Your task to perform on an android device: empty trash in the gmail app Image 0: 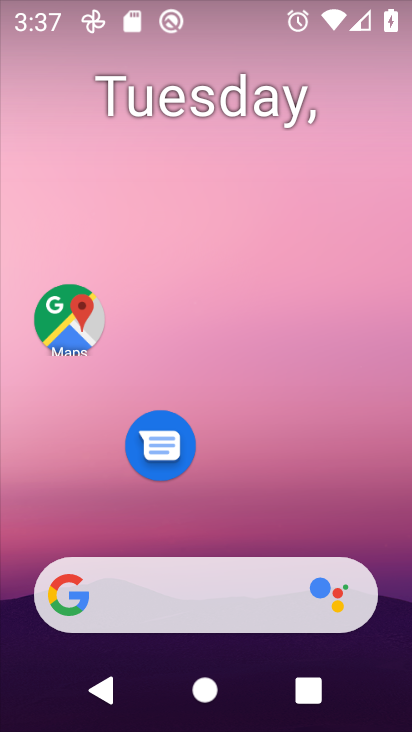
Step 0: drag from (262, 513) to (261, 17)
Your task to perform on an android device: empty trash in the gmail app Image 1: 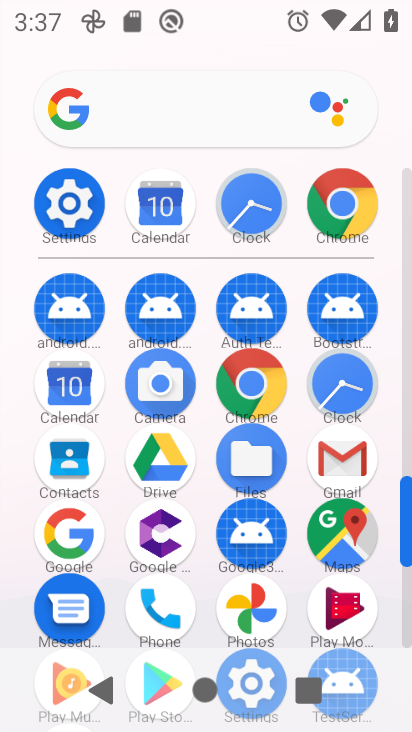
Step 1: click (348, 465)
Your task to perform on an android device: empty trash in the gmail app Image 2: 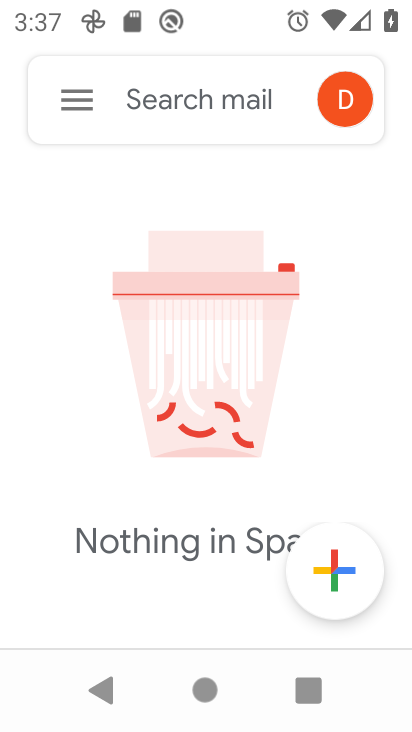
Step 2: click (66, 99)
Your task to perform on an android device: empty trash in the gmail app Image 3: 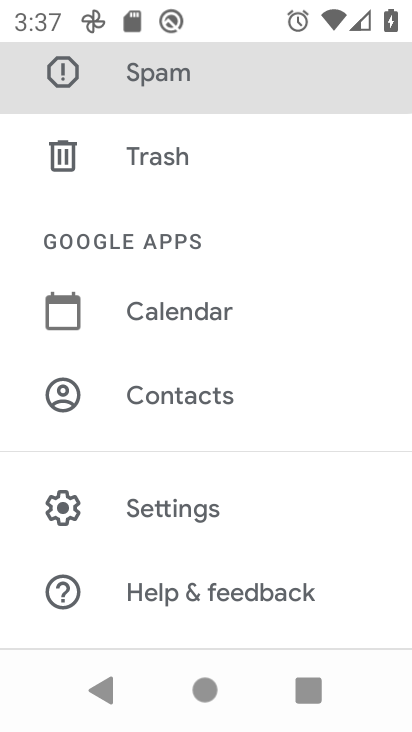
Step 3: click (155, 151)
Your task to perform on an android device: empty trash in the gmail app Image 4: 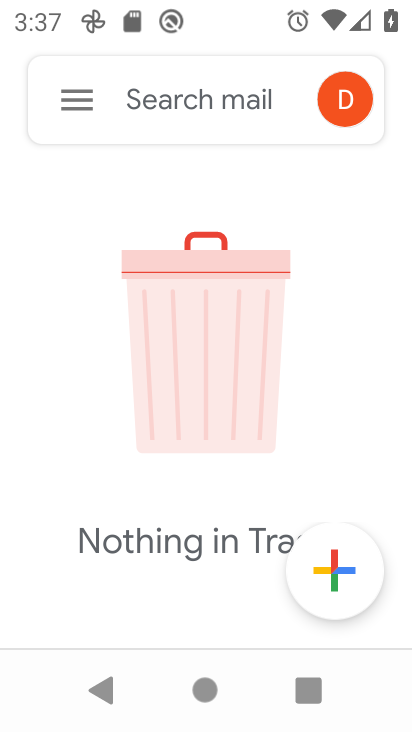
Step 4: task complete